Your task to perform on an android device: turn off improve location accuracy Image 0: 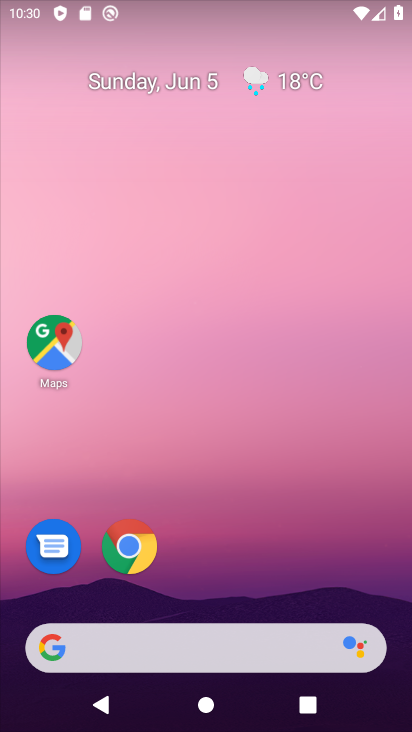
Step 0: drag from (154, 694) to (144, 109)
Your task to perform on an android device: turn off improve location accuracy Image 1: 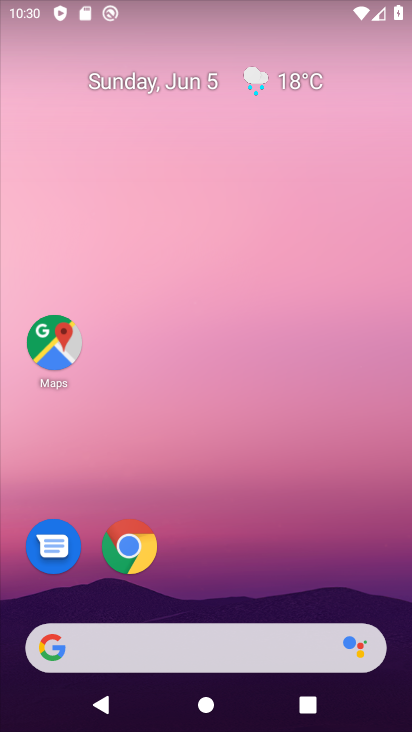
Step 1: drag from (150, 724) to (160, 19)
Your task to perform on an android device: turn off improve location accuracy Image 2: 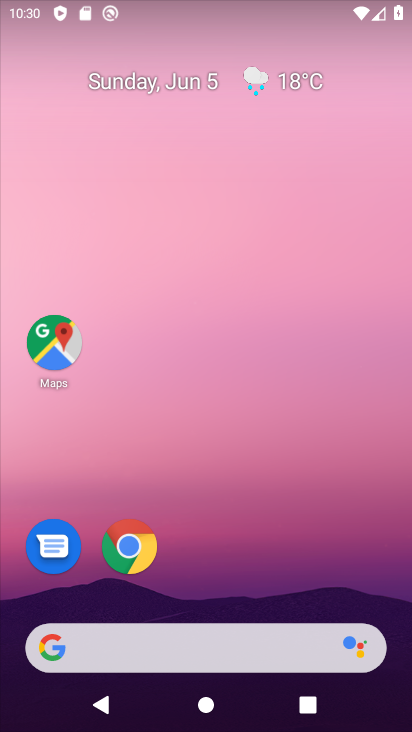
Step 2: drag from (153, 728) to (219, 65)
Your task to perform on an android device: turn off improve location accuracy Image 3: 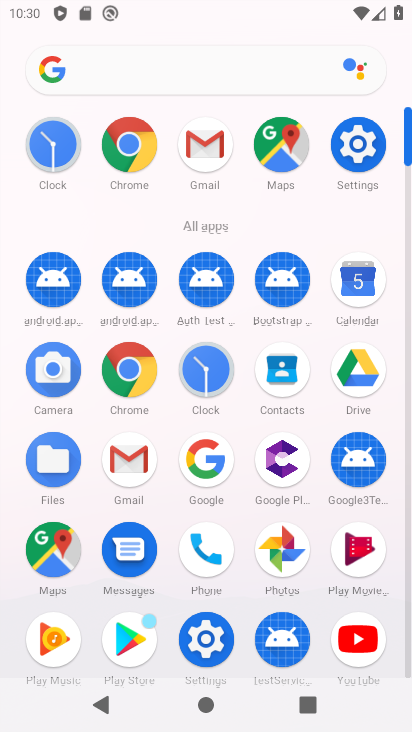
Step 3: click (349, 153)
Your task to perform on an android device: turn off improve location accuracy Image 4: 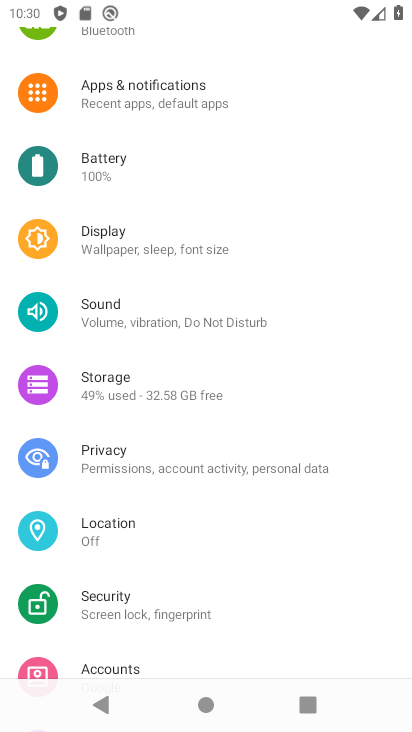
Step 4: click (141, 538)
Your task to perform on an android device: turn off improve location accuracy Image 5: 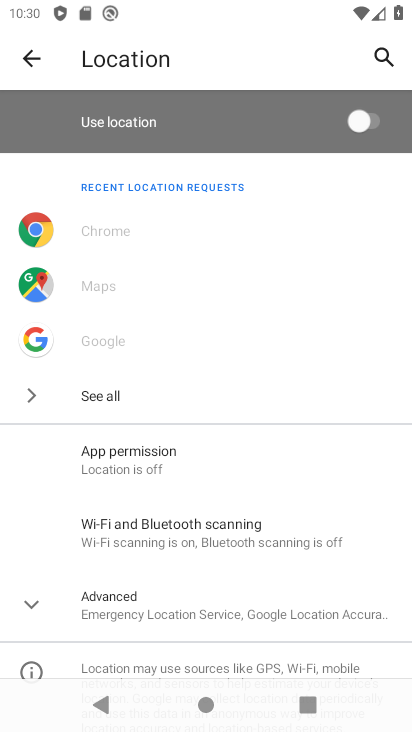
Step 5: click (106, 594)
Your task to perform on an android device: turn off improve location accuracy Image 6: 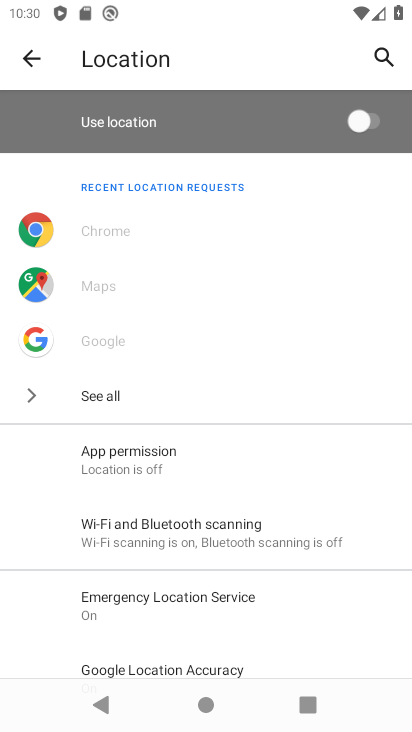
Step 6: click (160, 661)
Your task to perform on an android device: turn off improve location accuracy Image 7: 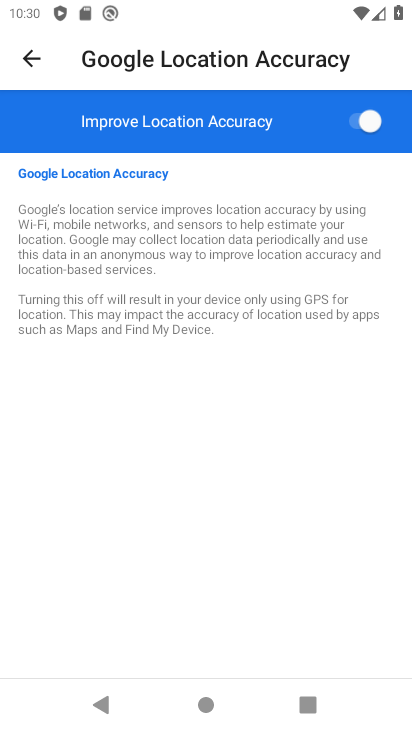
Step 7: click (367, 127)
Your task to perform on an android device: turn off improve location accuracy Image 8: 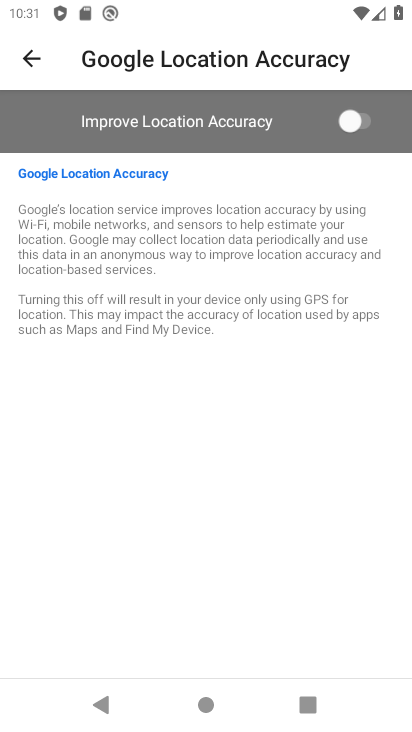
Step 8: task complete